Your task to perform on an android device: turn on improve location accuracy Image 0: 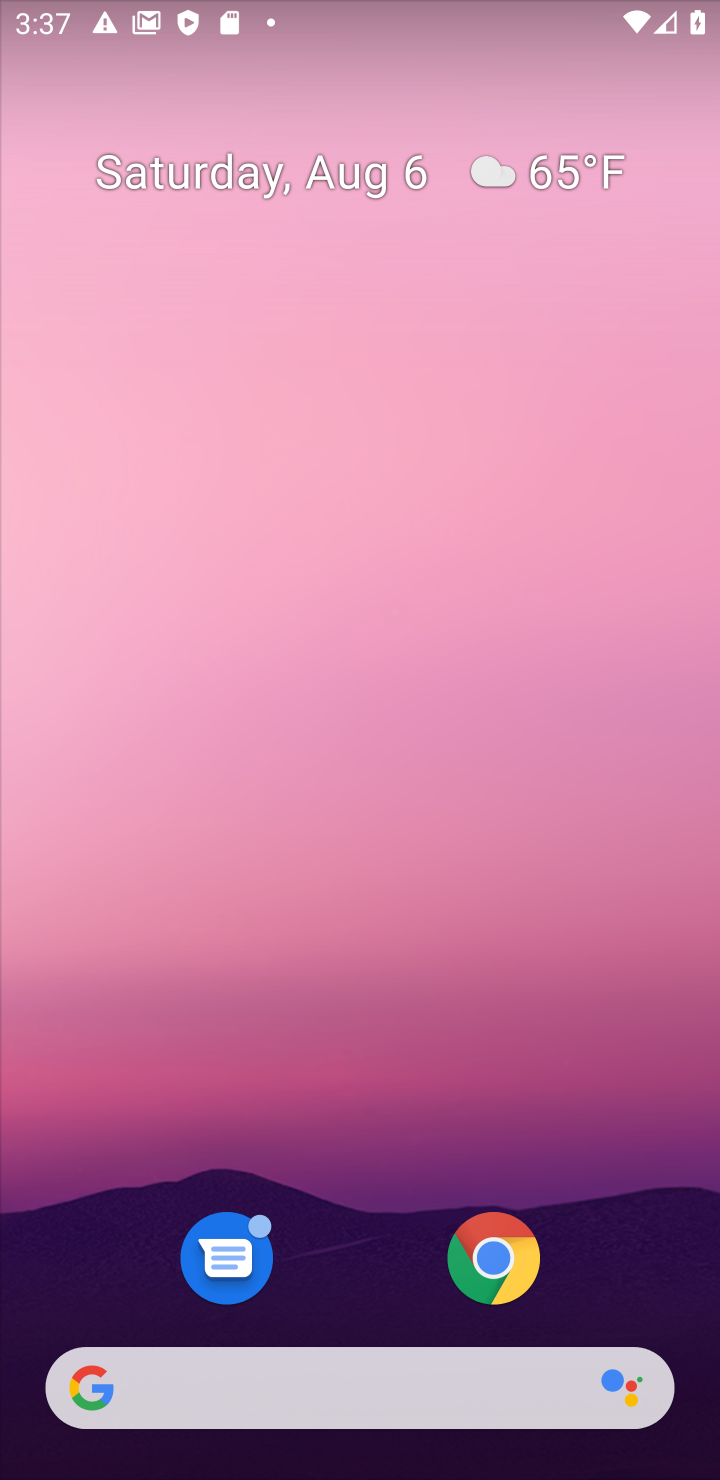
Step 0: press home button
Your task to perform on an android device: turn on improve location accuracy Image 1: 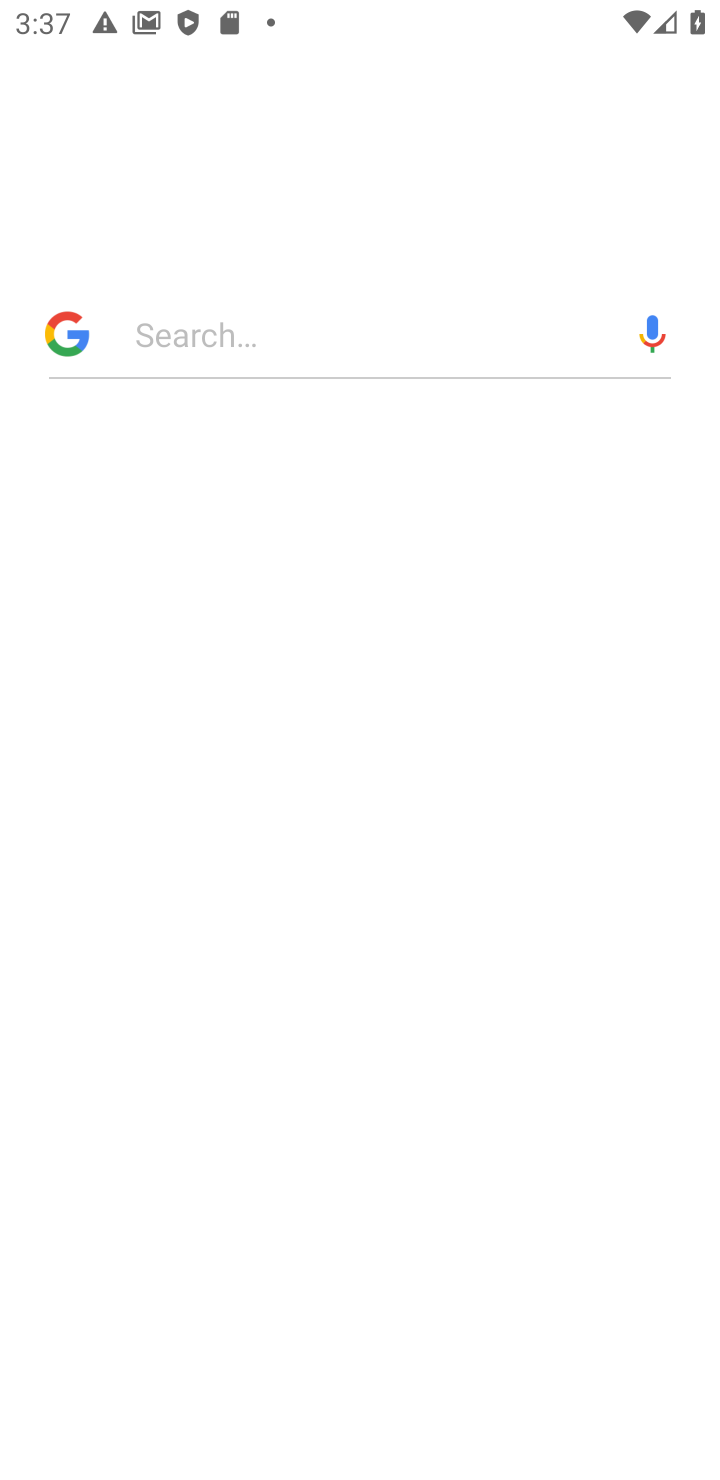
Step 1: drag from (493, 78) to (704, 425)
Your task to perform on an android device: turn on improve location accuracy Image 2: 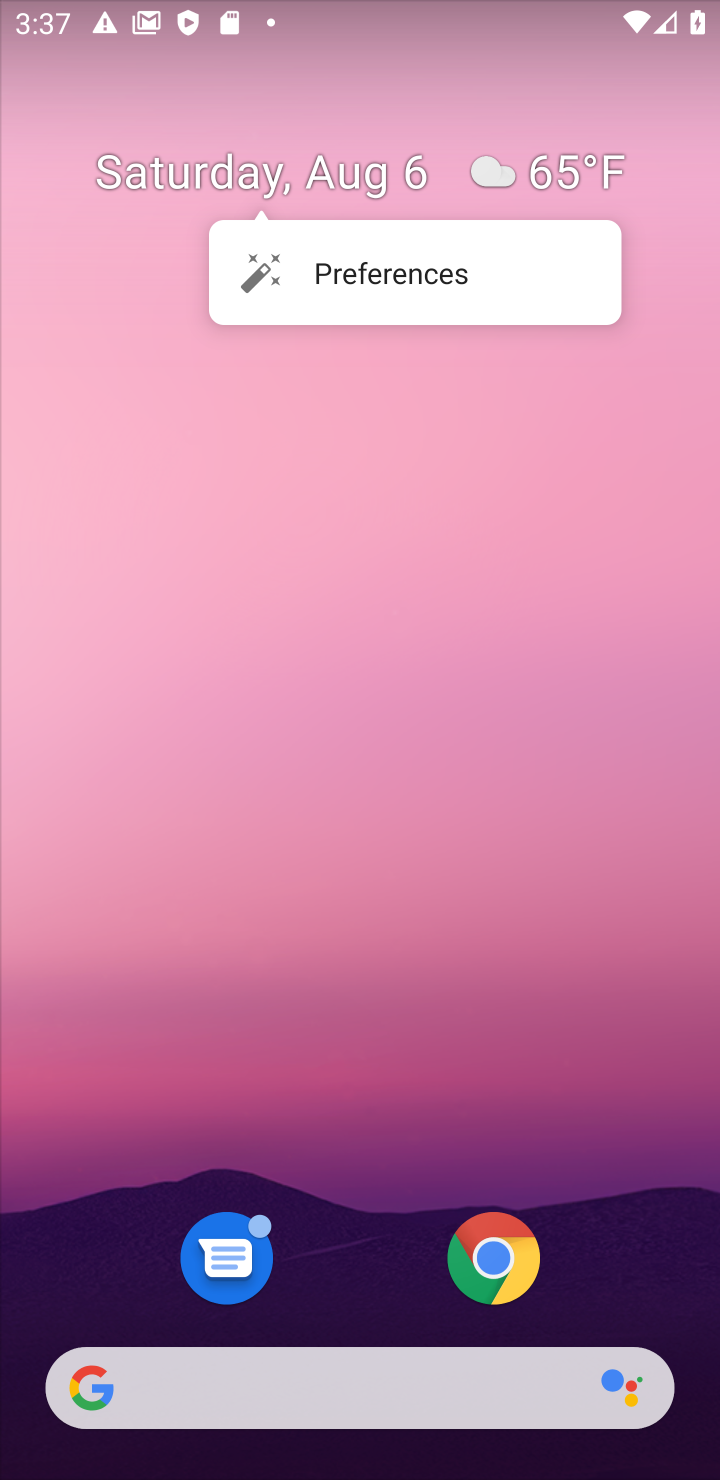
Step 2: drag from (369, 1311) to (242, 15)
Your task to perform on an android device: turn on improve location accuracy Image 3: 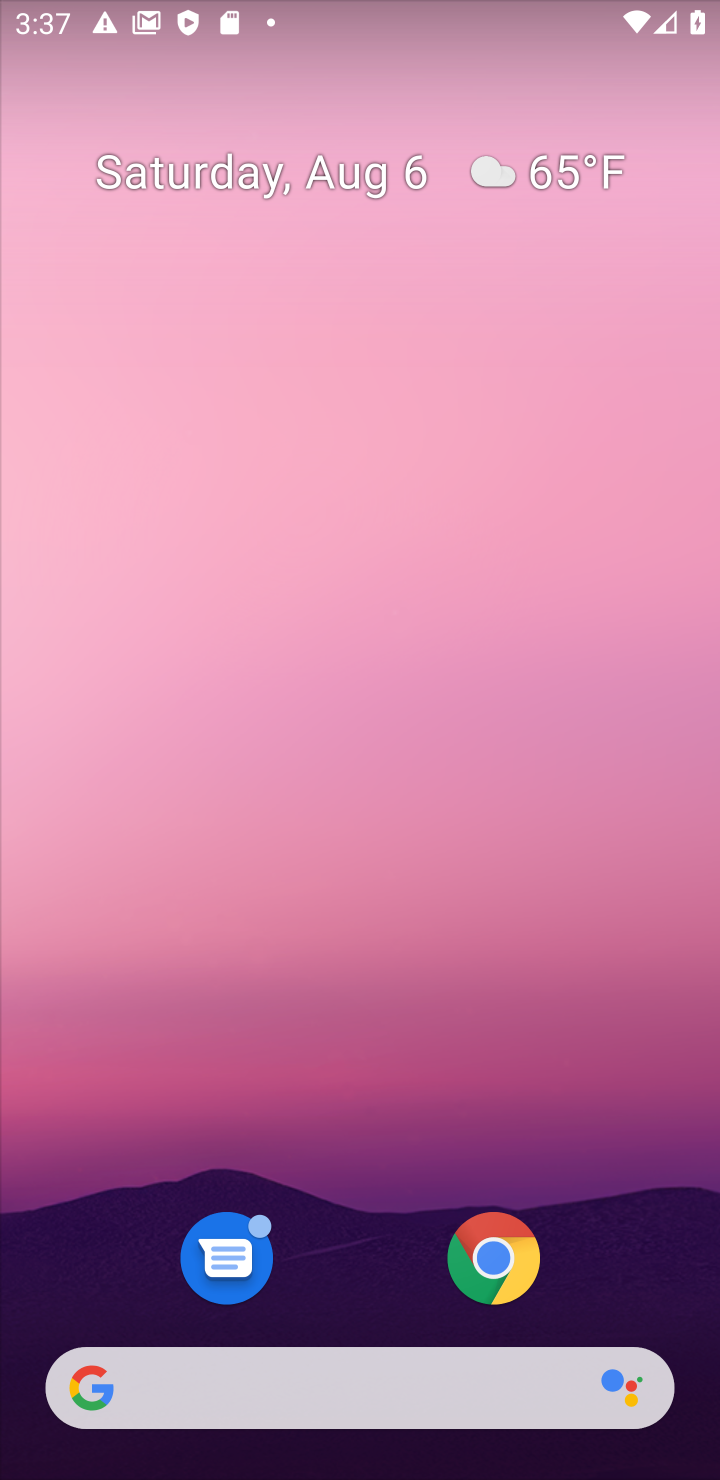
Step 3: drag from (380, 1072) to (396, 5)
Your task to perform on an android device: turn on improve location accuracy Image 4: 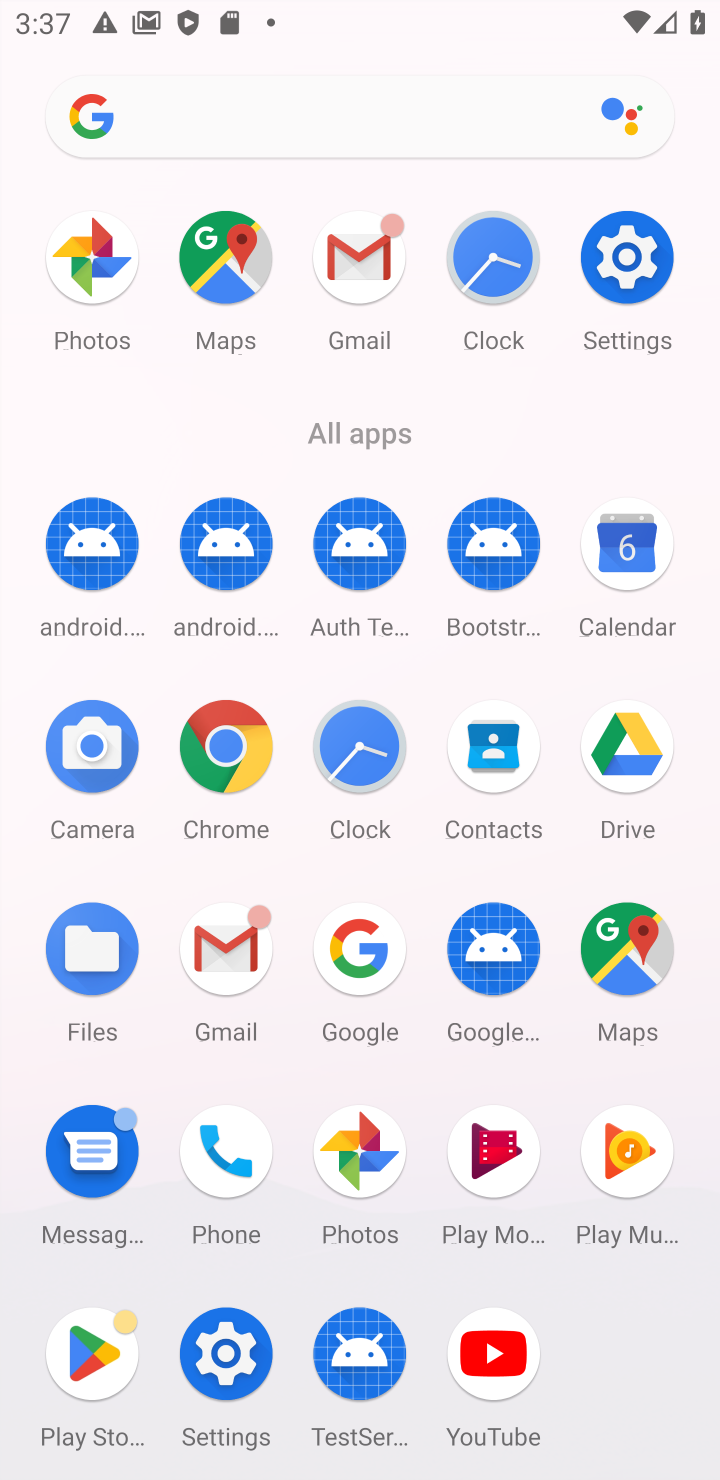
Step 4: click (618, 537)
Your task to perform on an android device: turn on improve location accuracy Image 5: 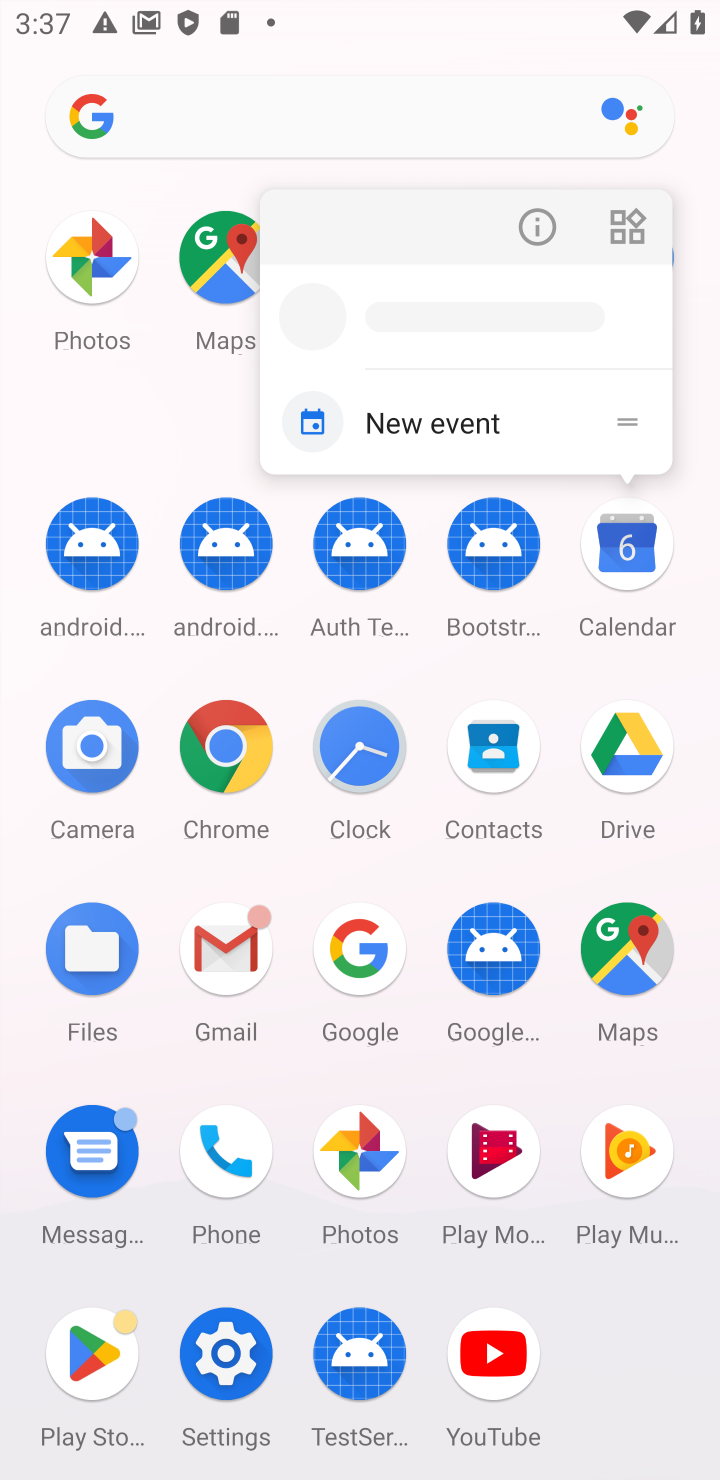
Step 5: click (645, 268)
Your task to perform on an android device: turn on improve location accuracy Image 6: 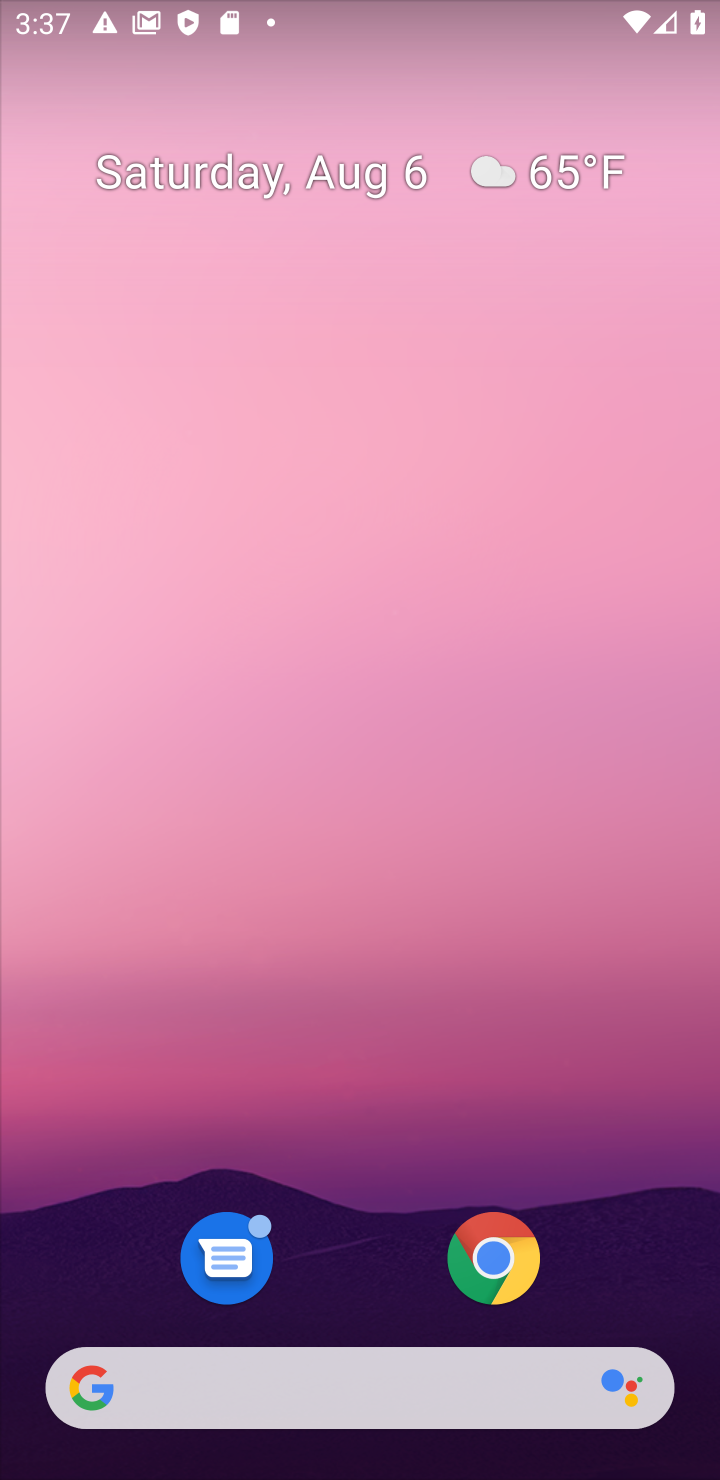
Step 6: drag from (361, 645) to (528, 85)
Your task to perform on an android device: turn on improve location accuracy Image 7: 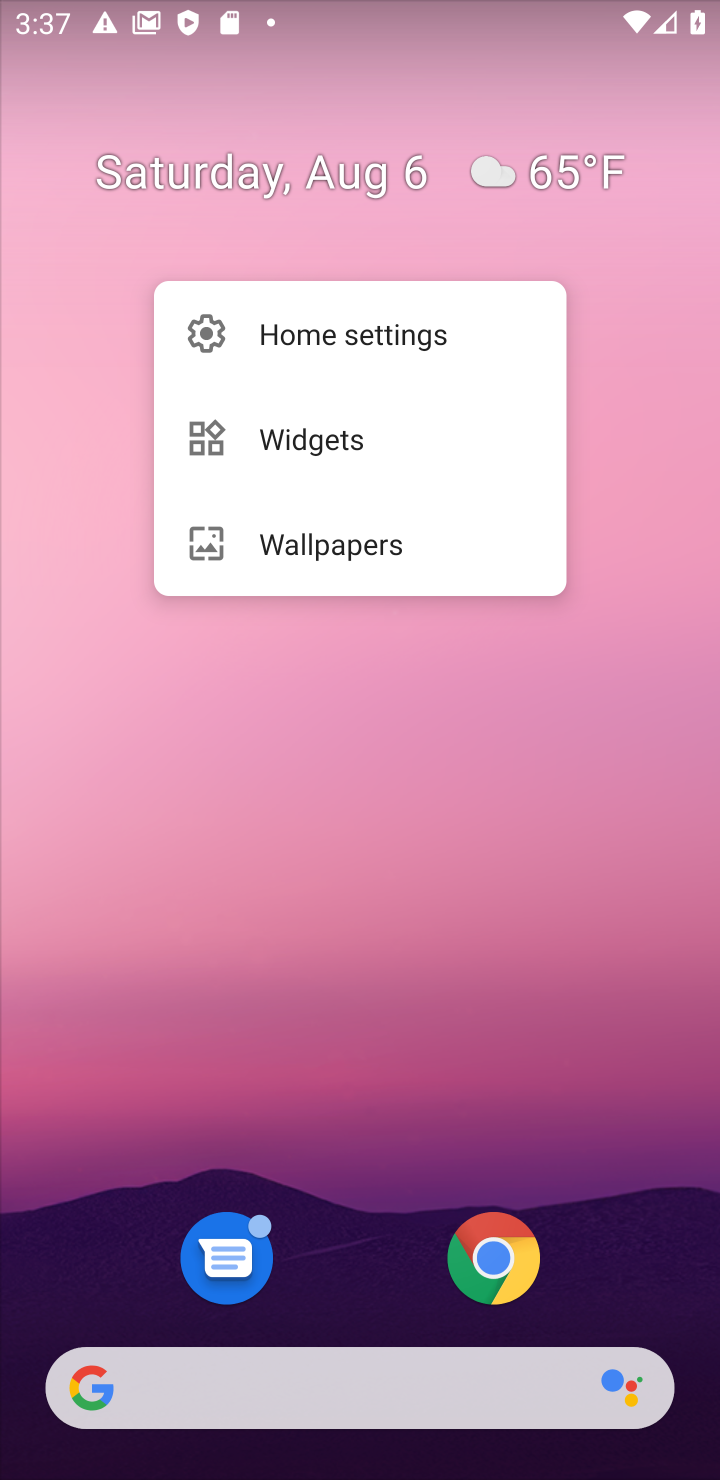
Step 7: drag from (391, 1188) to (456, 11)
Your task to perform on an android device: turn on improve location accuracy Image 8: 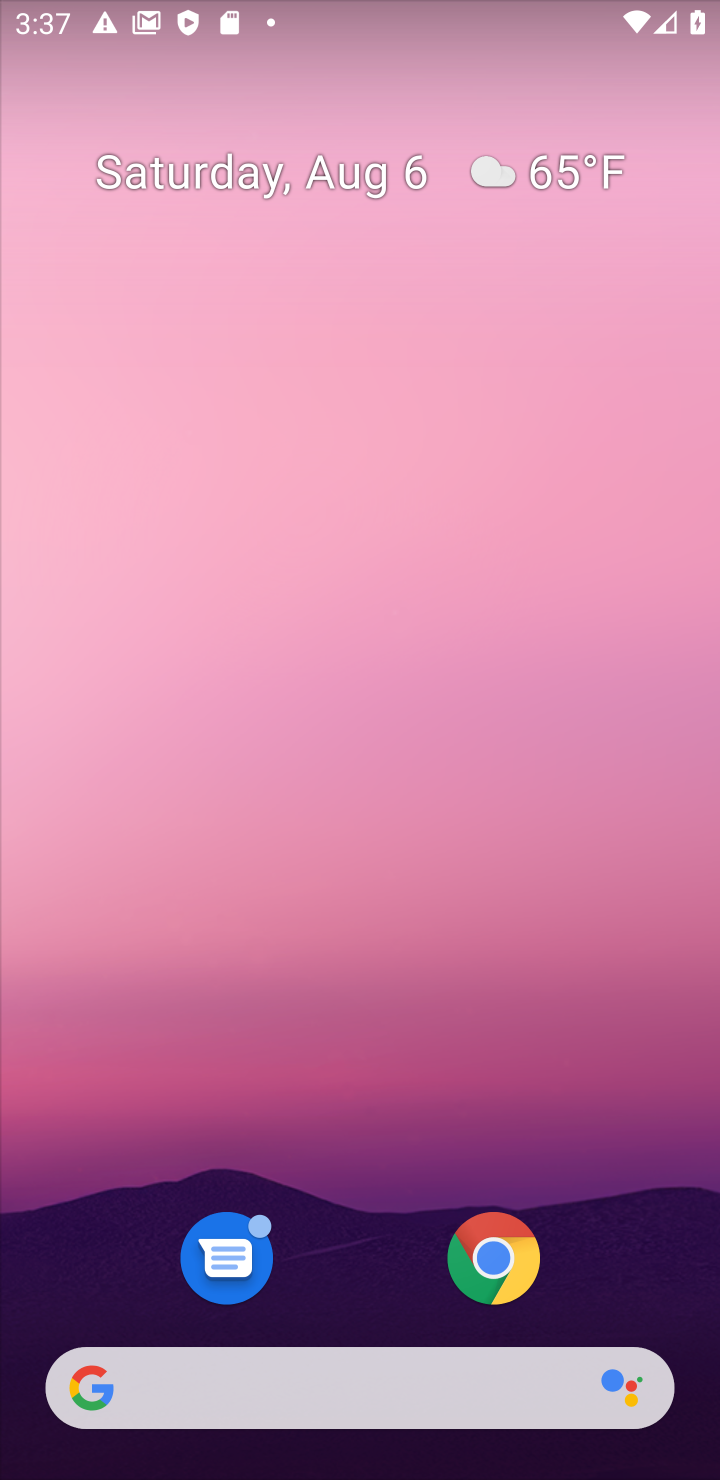
Step 8: drag from (334, 921) to (387, 6)
Your task to perform on an android device: turn on improve location accuracy Image 9: 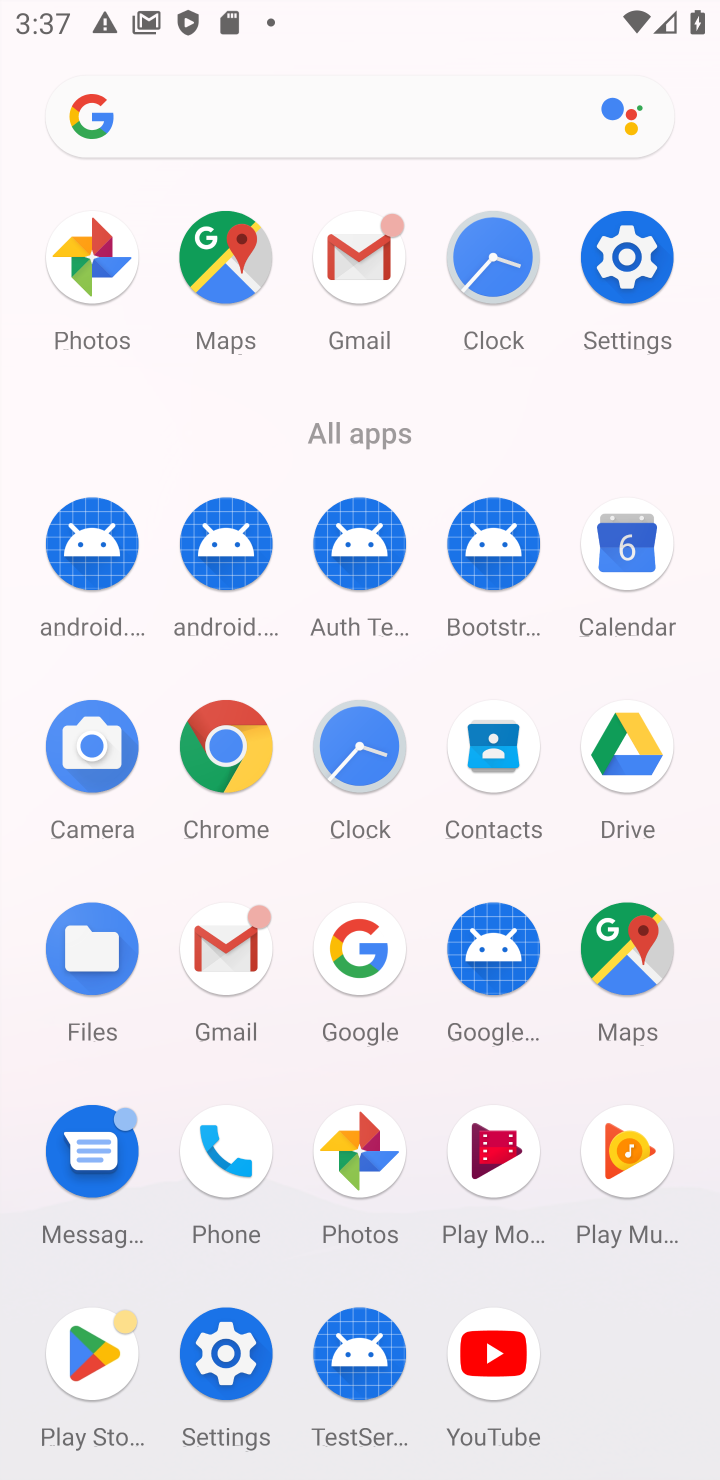
Step 9: click (649, 296)
Your task to perform on an android device: turn on improve location accuracy Image 10: 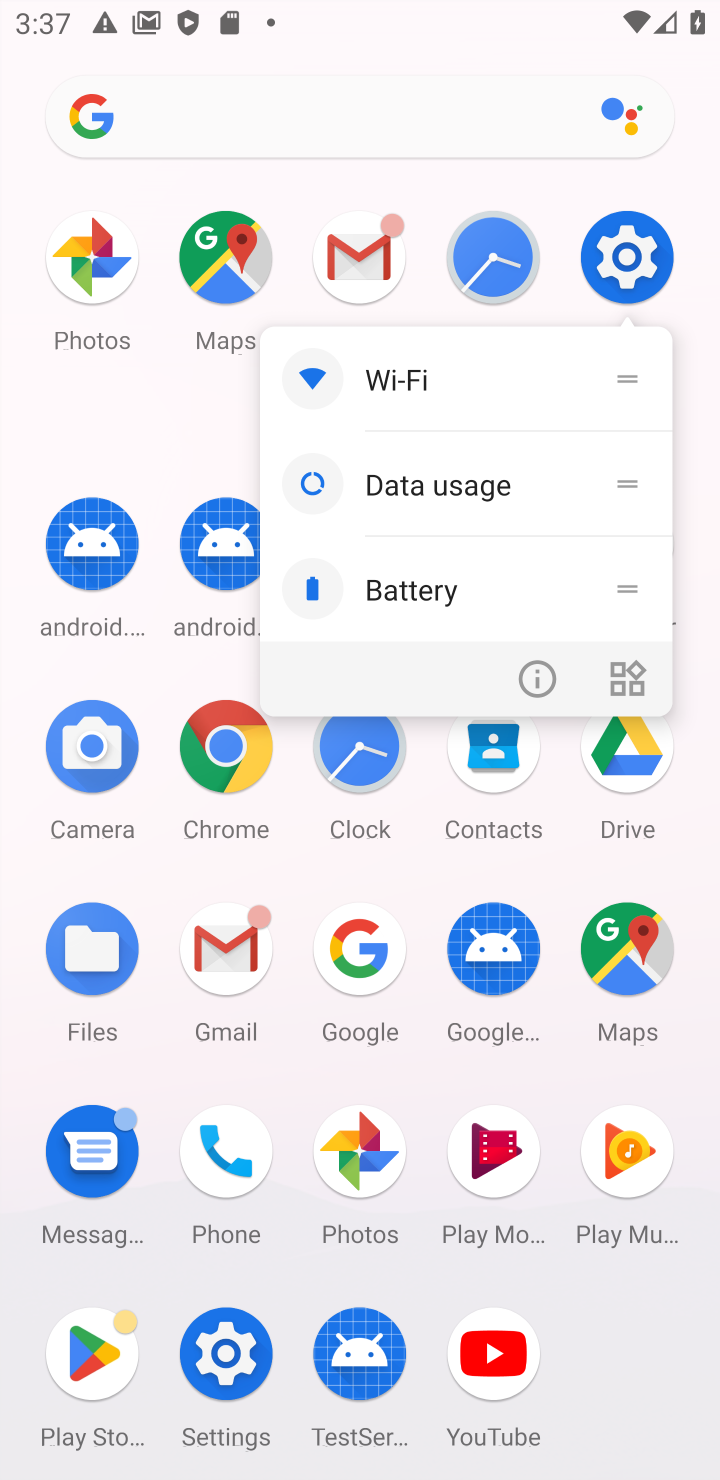
Step 10: click (644, 255)
Your task to perform on an android device: turn on improve location accuracy Image 11: 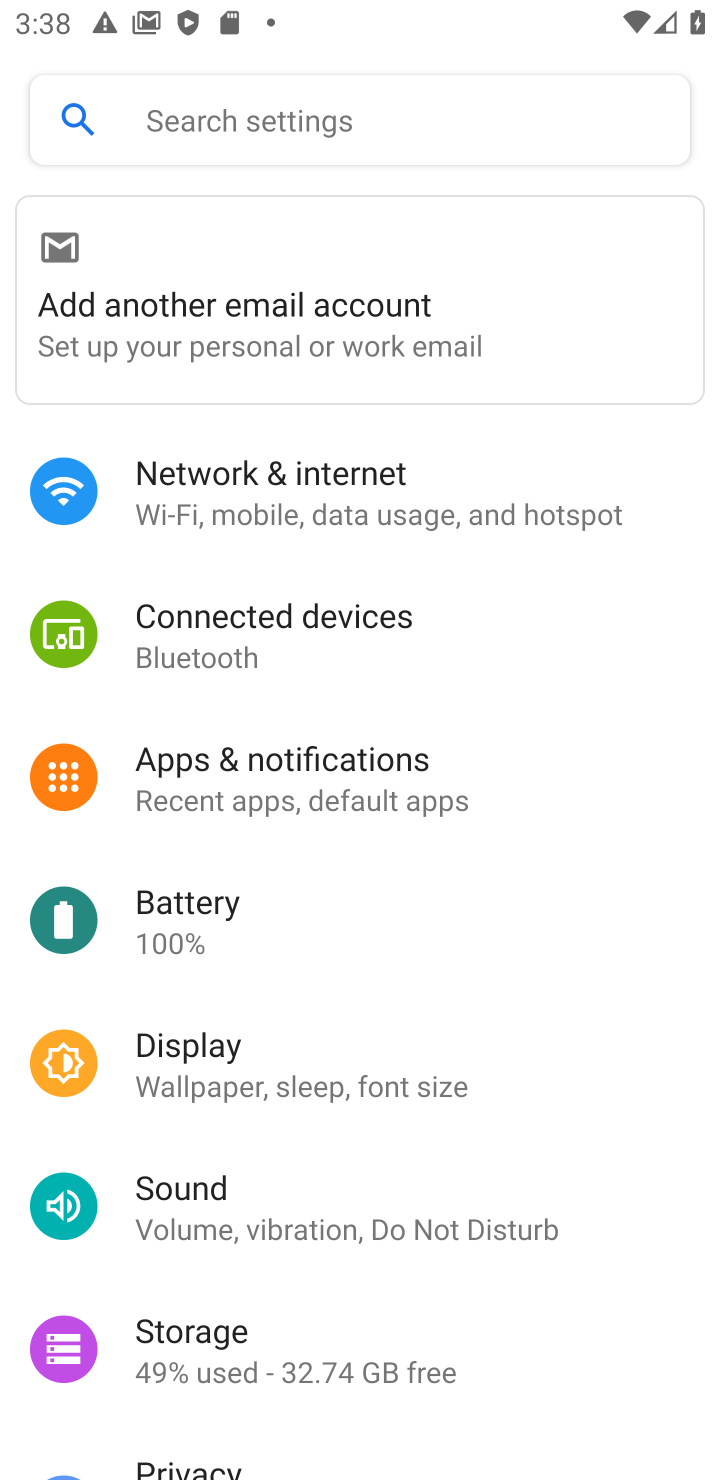
Step 11: drag from (285, 1261) to (349, 572)
Your task to perform on an android device: turn on improve location accuracy Image 12: 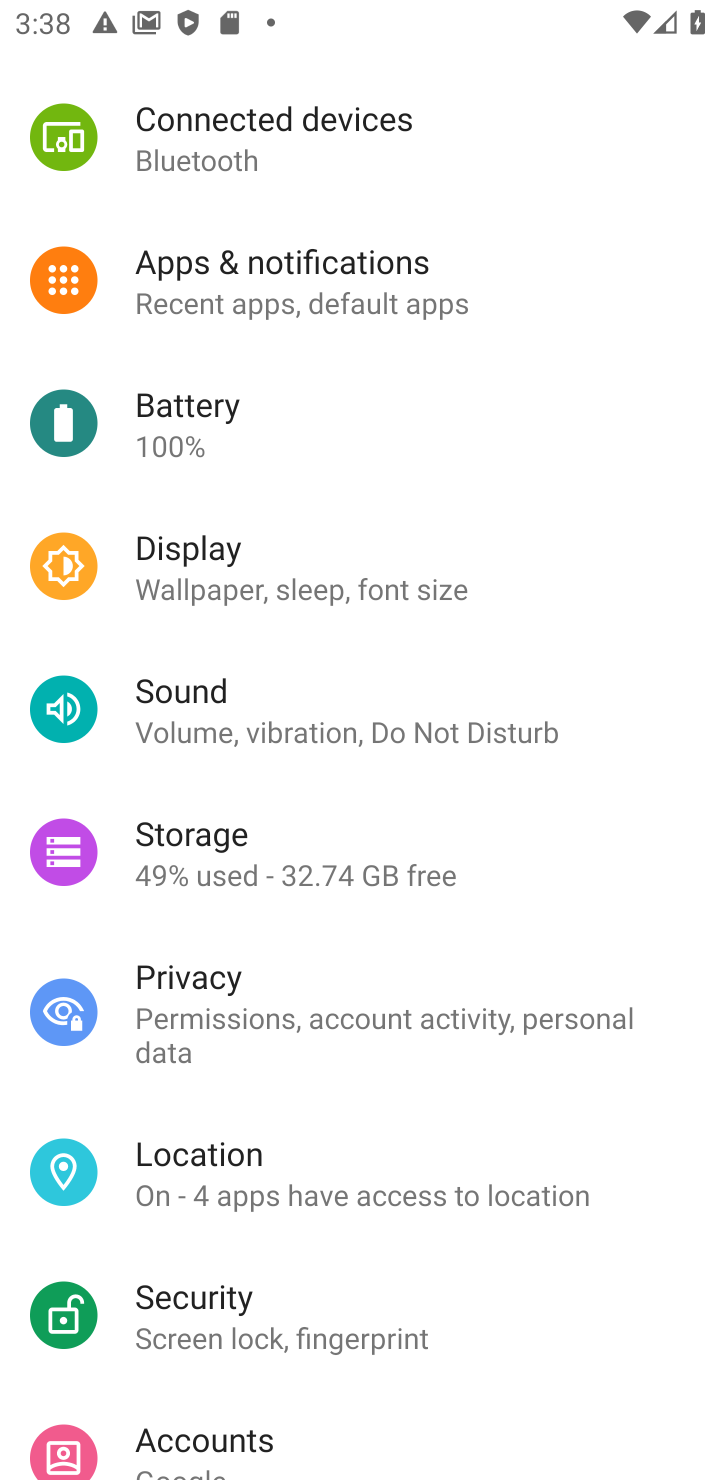
Step 12: click (250, 1173)
Your task to perform on an android device: turn on improve location accuracy Image 13: 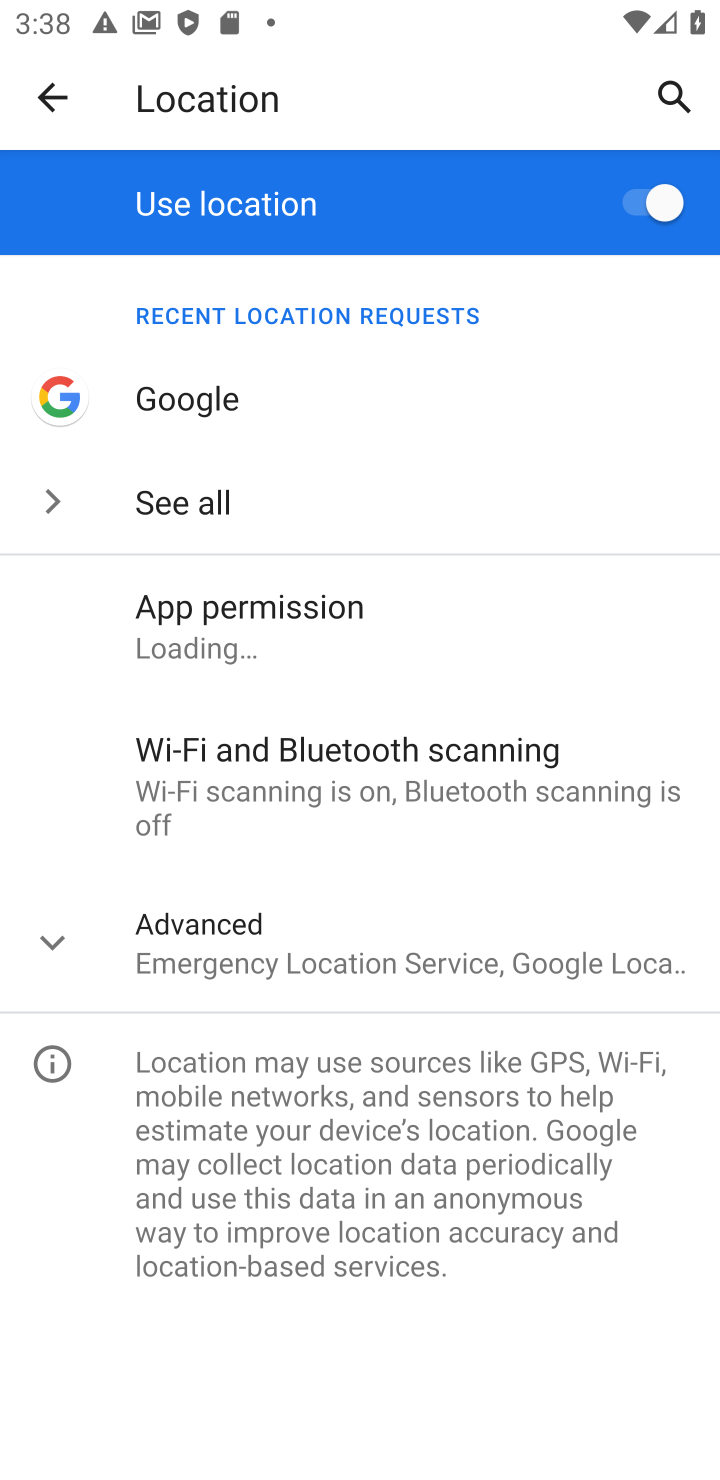
Step 13: click (249, 934)
Your task to perform on an android device: turn on improve location accuracy Image 14: 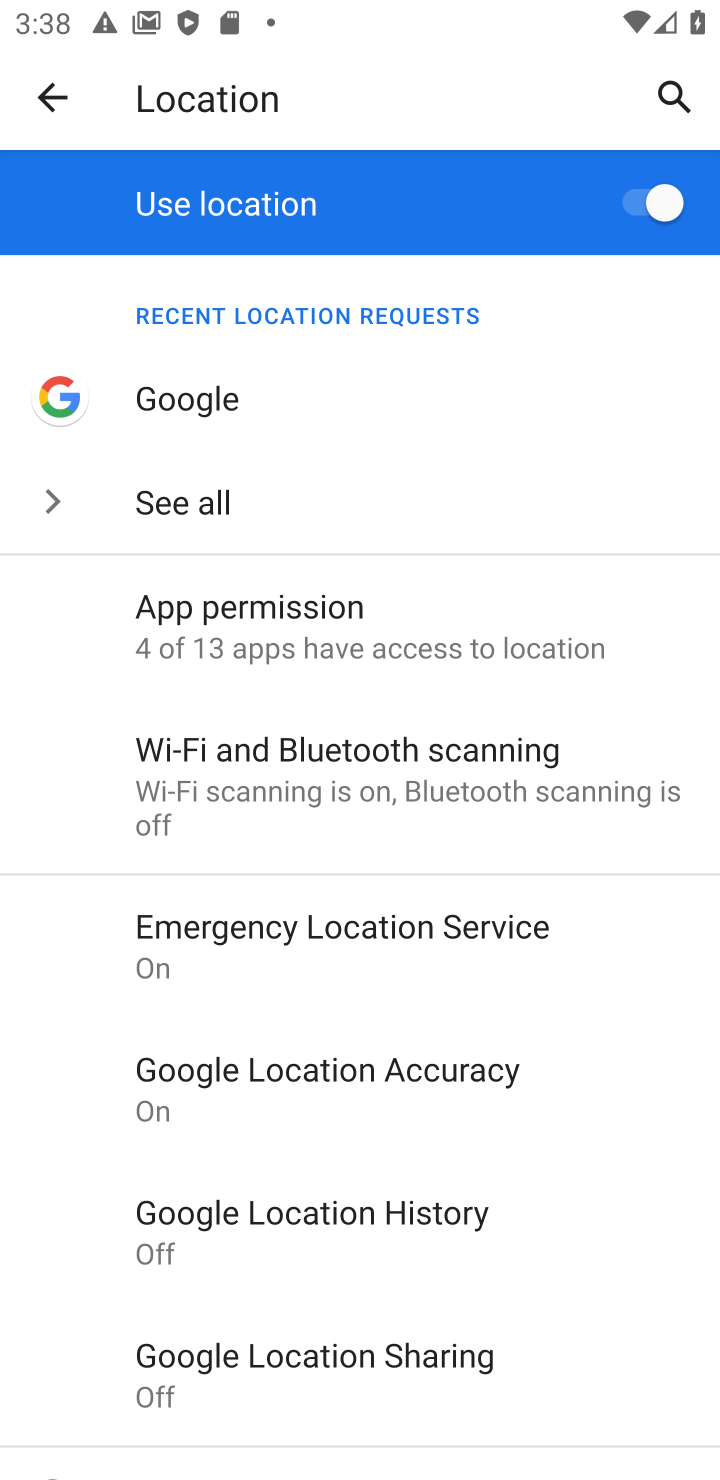
Step 14: click (325, 1070)
Your task to perform on an android device: turn on improve location accuracy Image 15: 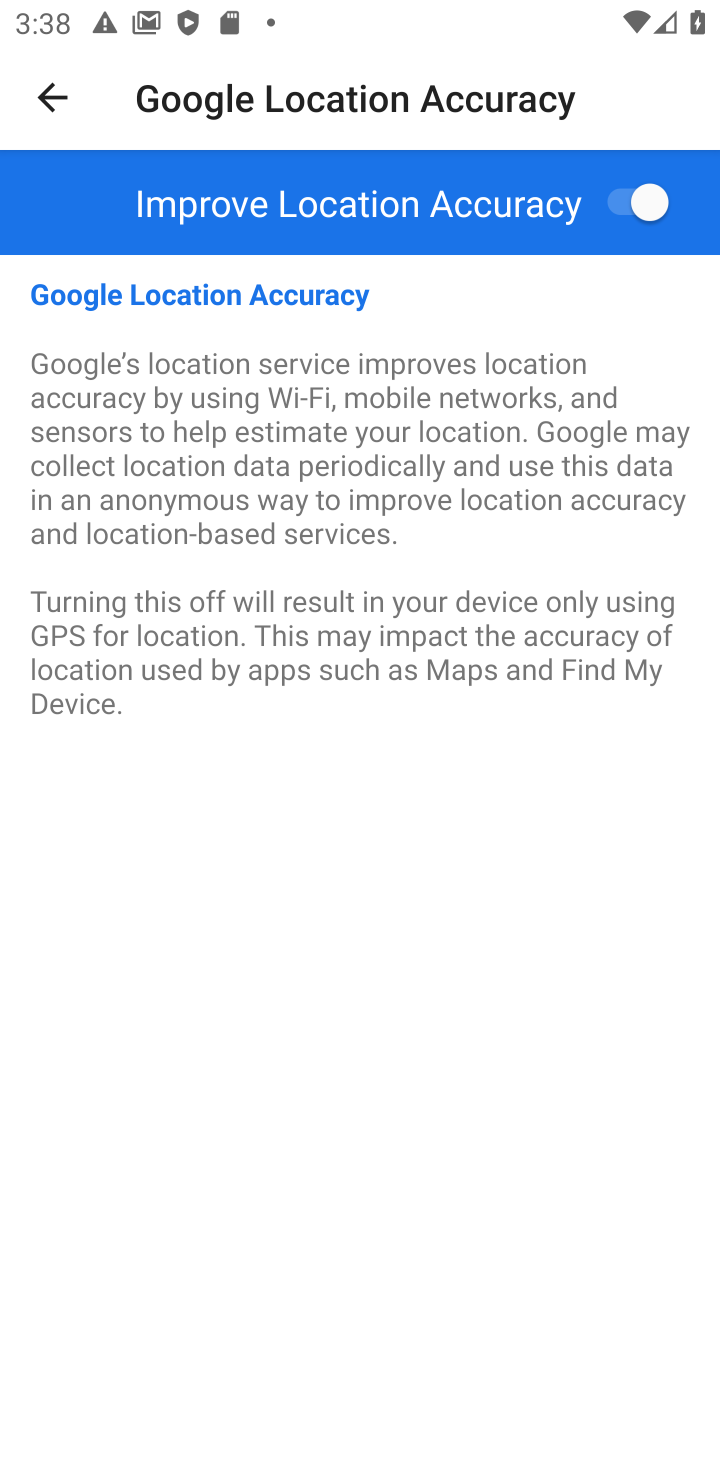
Step 15: task complete